Your task to perform on an android device: move a message to another label in the gmail app Image 0: 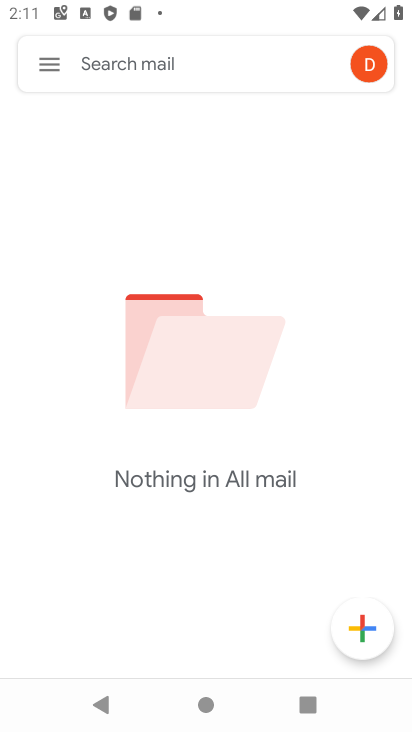
Step 0: press home button
Your task to perform on an android device: move a message to another label in the gmail app Image 1: 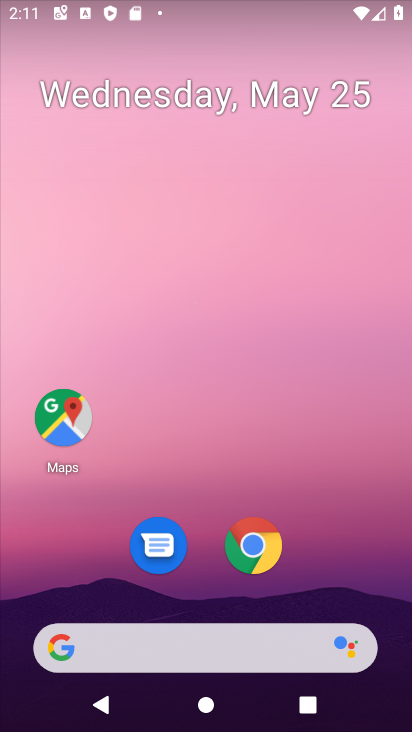
Step 1: drag from (395, 580) to (307, 155)
Your task to perform on an android device: move a message to another label in the gmail app Image 2: 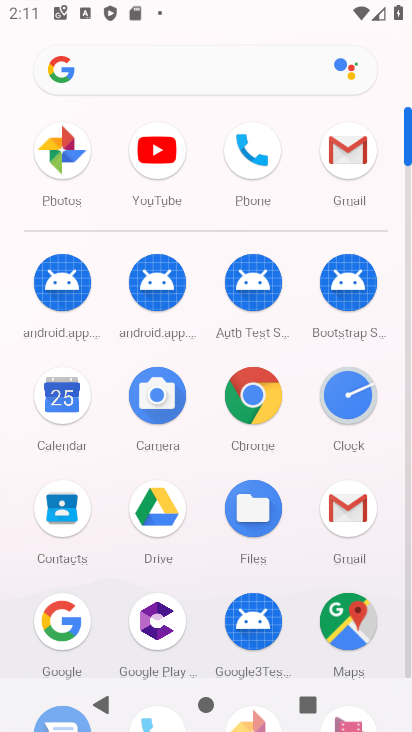
Step 2: click (361, 514)
Your task to perform on an android device: move a message to another label in the gmail app Image 3: 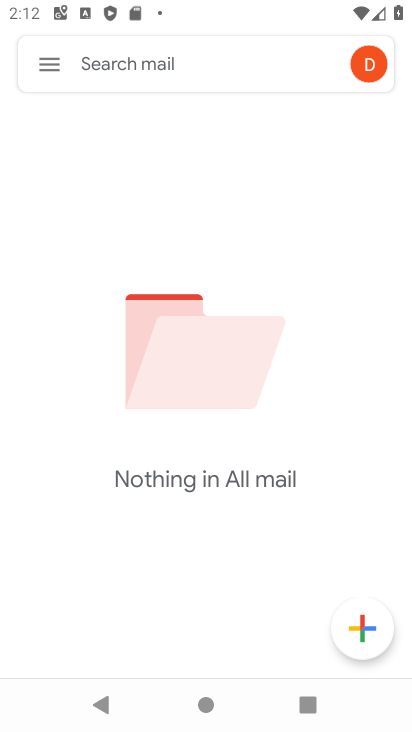
Step 3: task complete